Your task to perform on an android device: find which apps use the phone's location Image 0: 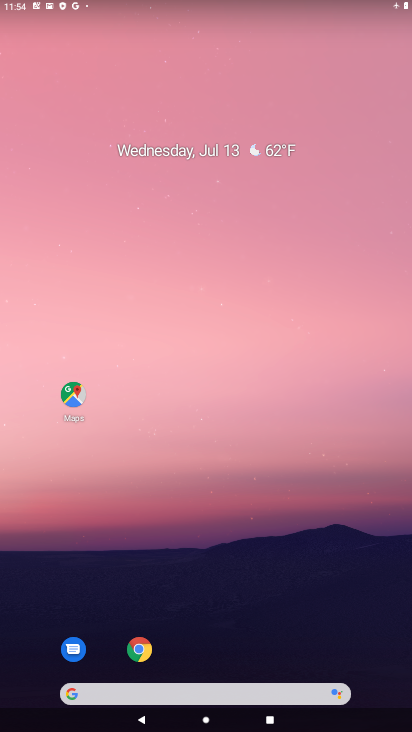
Step 0: drag from (346, 638) to (207, 23)
Your task to perform on an android device: find which apps use the phone's location Image 1: 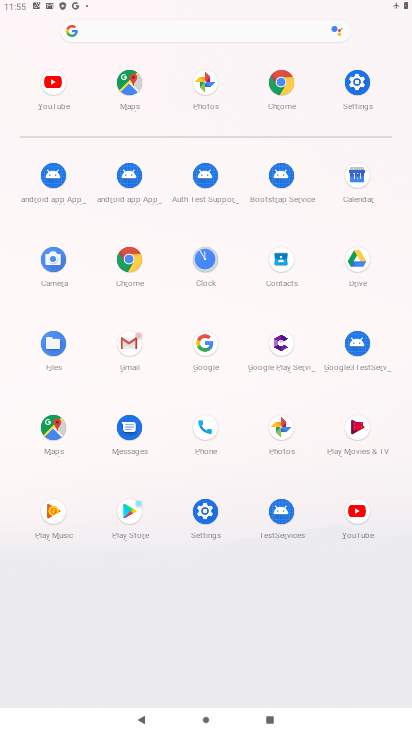
Step 1: click (205, 516)
Your task to perform on an android device: find which apps use the phone's location Image 2: 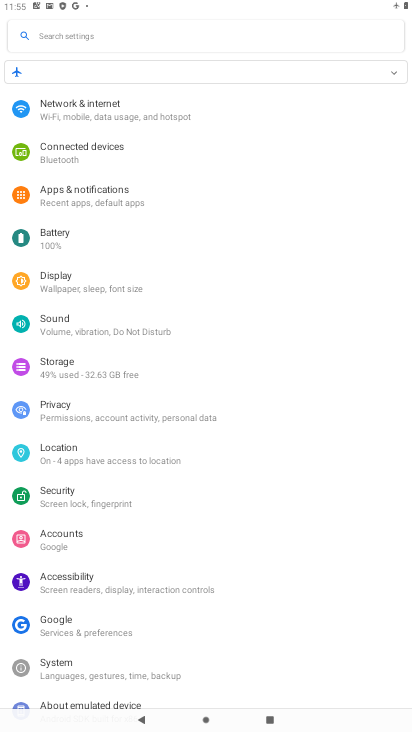
Step 2: click (68, 455)
Your task to perform on an android device: find which apps use the phone's location Image 3: 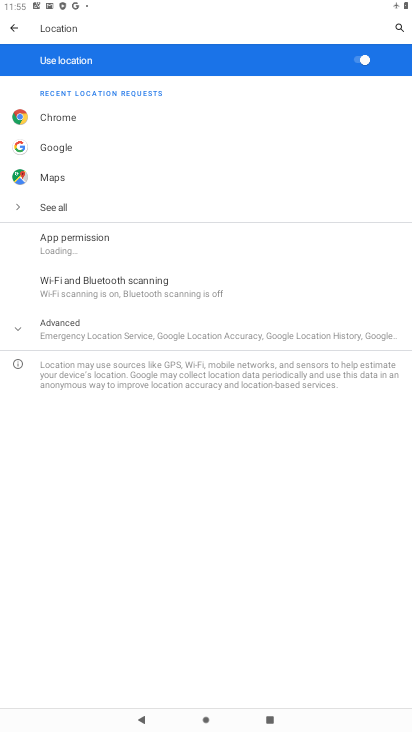
Step 3: click (70, 247)
Your task to perform on an android device: find which apps use the phone's location Image 4: 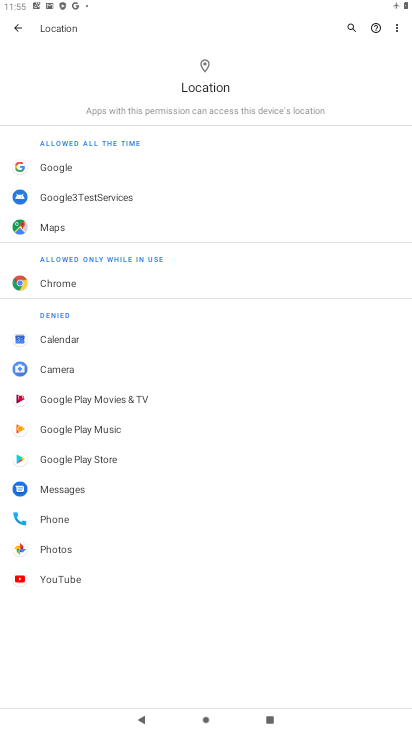
Step 4: click (52, 521)
Your task to perform on an android device: find which apps use the phone's location Image 5: 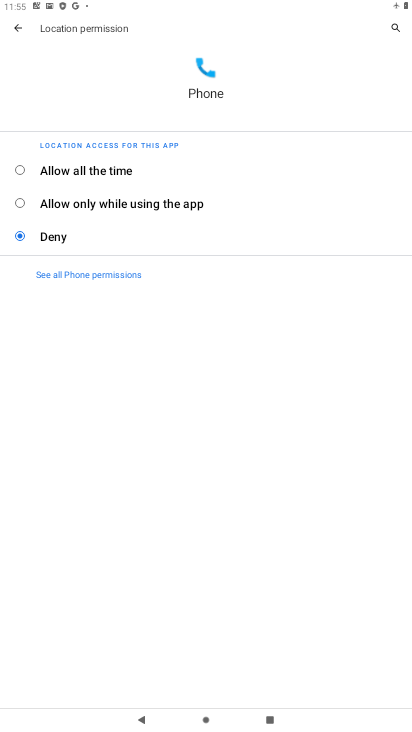
Step 5: click (120, 171)
Your task to perform on an android device: find which apps use the phone's location Image 6: 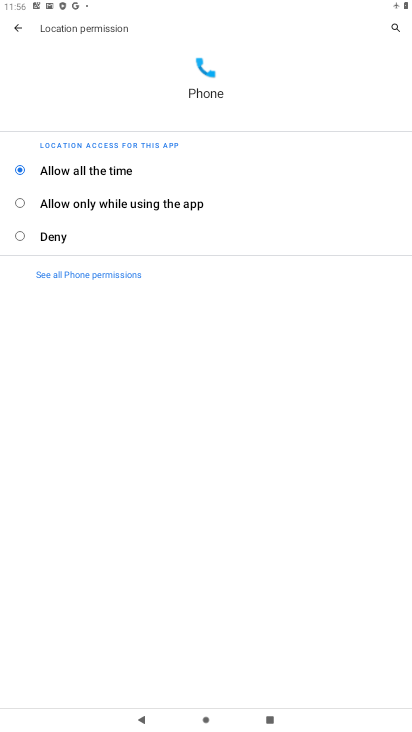
Step 6: task complete